Your task to perform on an android device: allow notifications from all sites in the chrome app Image 0: 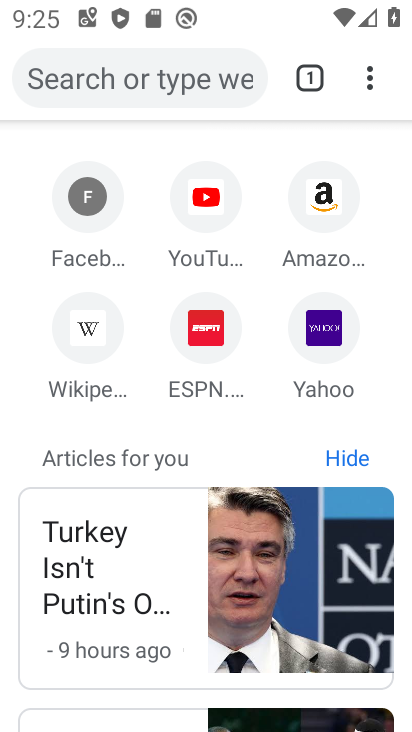
Step 0: click (367, 81)
Your task to perform on an android device: allow notifications from all sites in the chrome app Image 1: 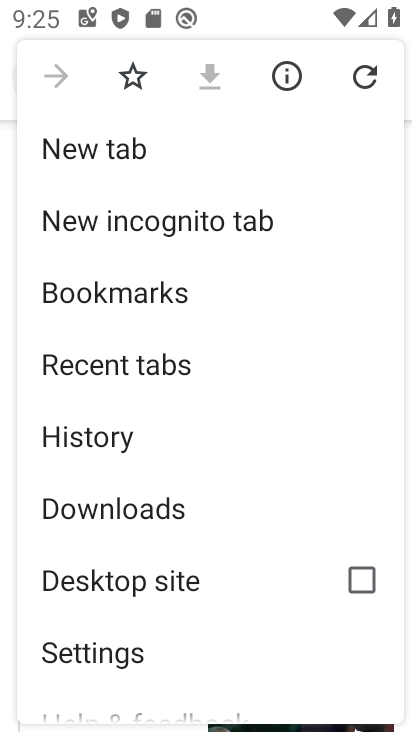
Step 1: click (105, 656)
Your task to perform on an android device: allow notifications from all sites in the chrome app Image 2: 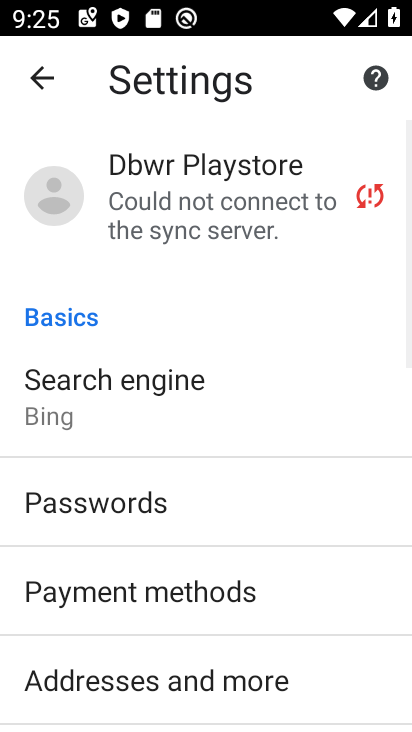
Step 2: drag from (141, 554) to (204, 435)
Your task to perform on an android device: allow notifications from all sites in the chrome app Image 3: 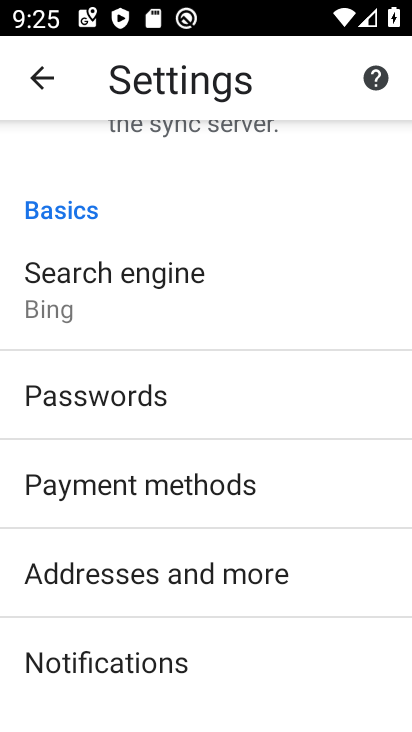
Step 3: drag from (126, 588) to (216, 469)
Your task to perform on an android device: allow notifications from all sites in the chrome app Image 4: 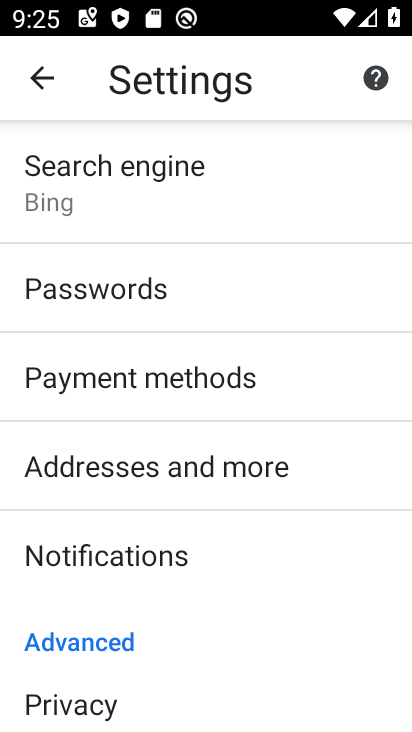
Step 4: drag from (127, 580) to (249, 437)
Your task to perform on an android device: allow notifications from all sites in the chrome app Image 5: 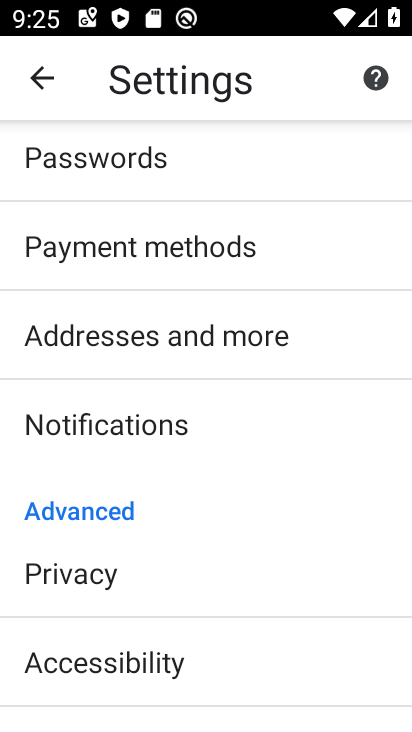
Step 5: drag from (172, 587) to (269, 448)
Your task to perform on an android device: allow notifications from all sites in the chrome app Image 6: 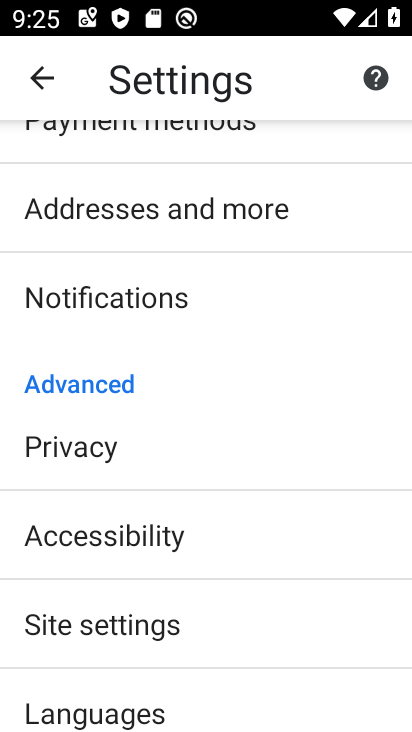
Step 6: click (108, 622)
Your task to perform on an android device: allow notifications from all sites in the chrome app Image 7: 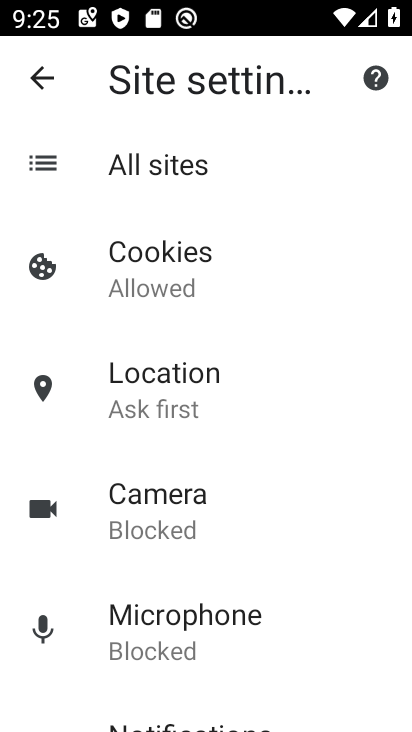
Step 7: drag from (174, 580) to (238, 469)
Your task to perform on an android device: allow notifications from all sites in the chrome app Image 8: 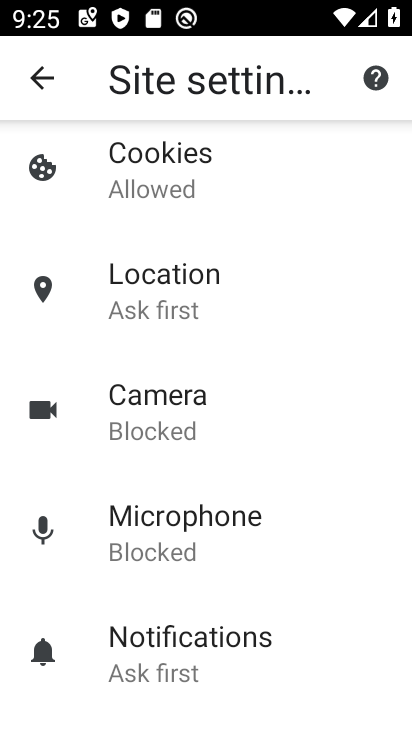
Step 8: click (180, 637)
Your task to perform on an android device: allow notifications from all sites in the chrome app Image 9: 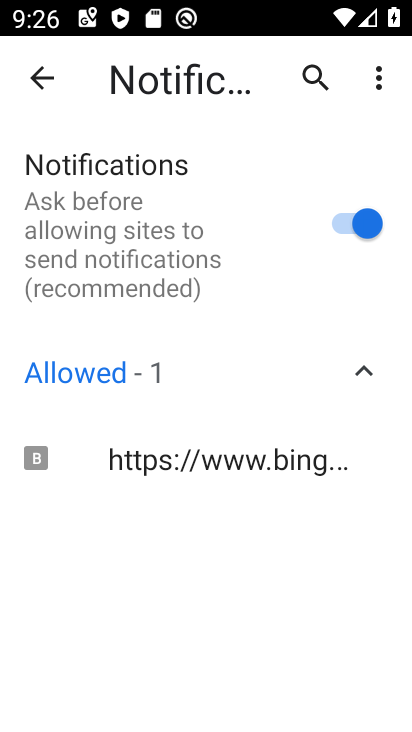
Step 9: task complete